Your task to perform on an android device: What is the recent news? Image 0: 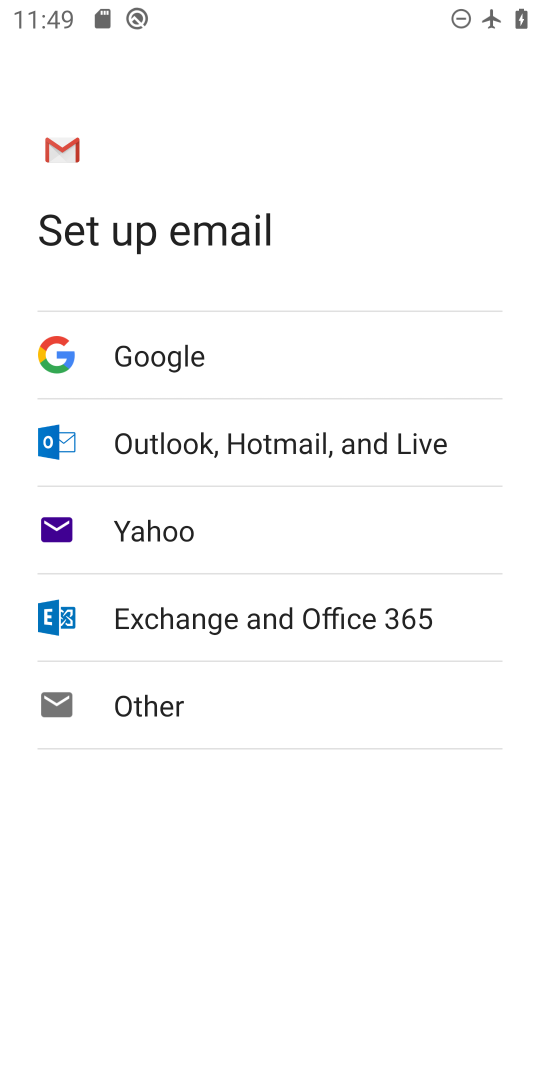
Step 0: press home button
Your task to perform on an android device: What is the recent news? Image 1: 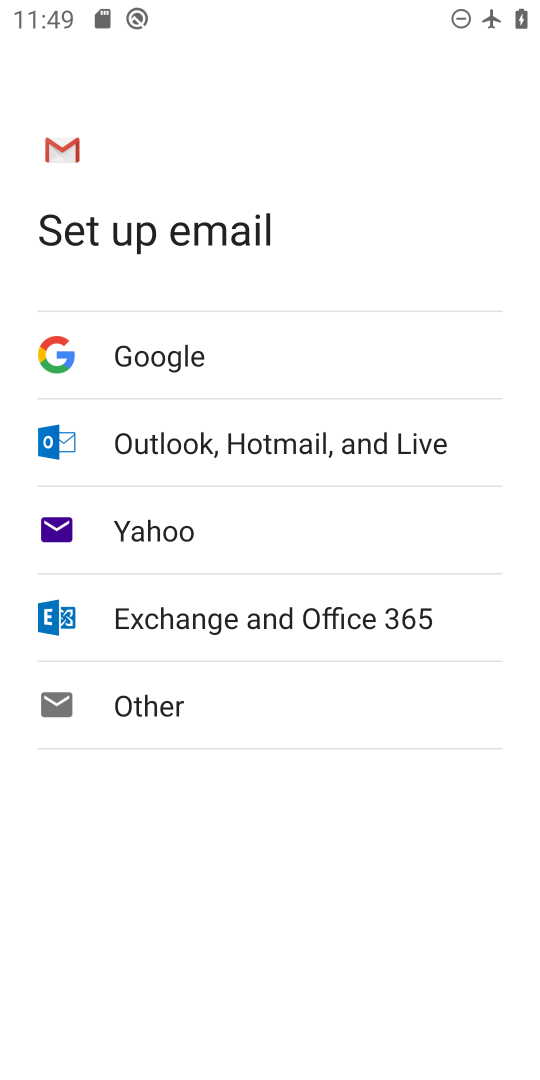
Step 1: press home button
Your task to perform on an android device: What is the recent news? Image 2: 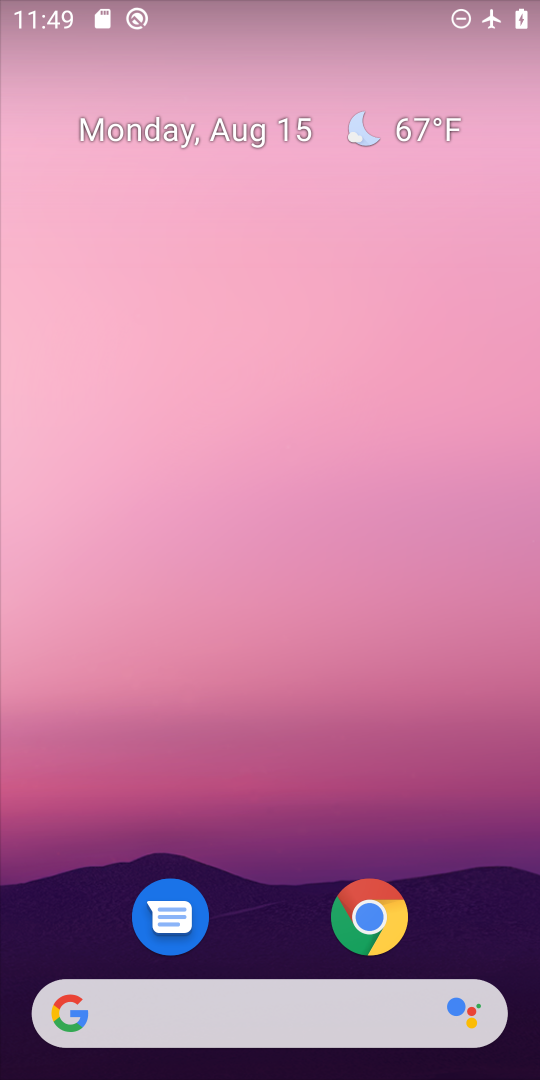
Step 2: click (357, 1013)
Your task to perform on an android device: What is the recent news? Image 3: 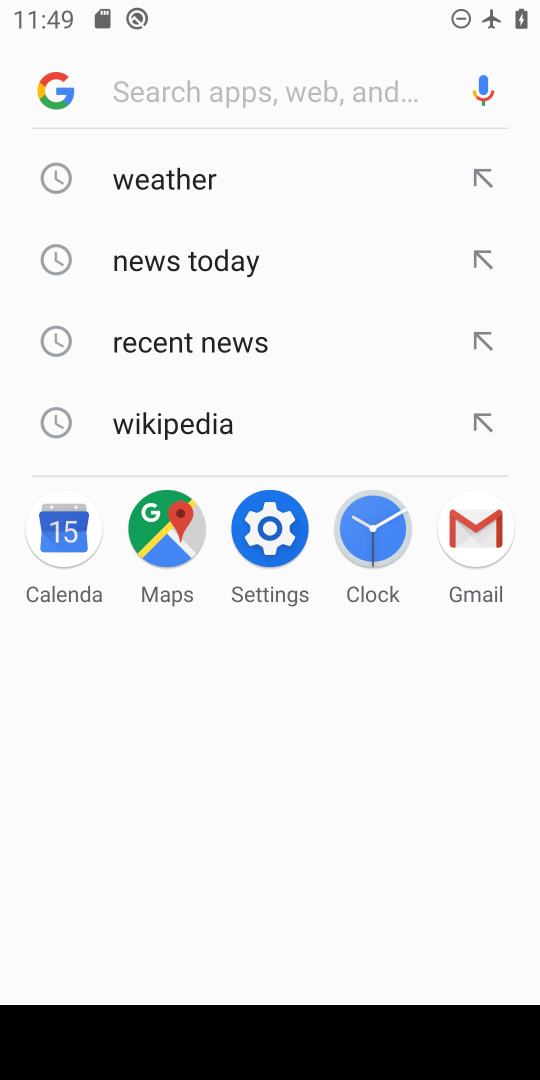
Step 3: click (206, 339)
Your task to perform on an android device: What is the recent news? Image 4: 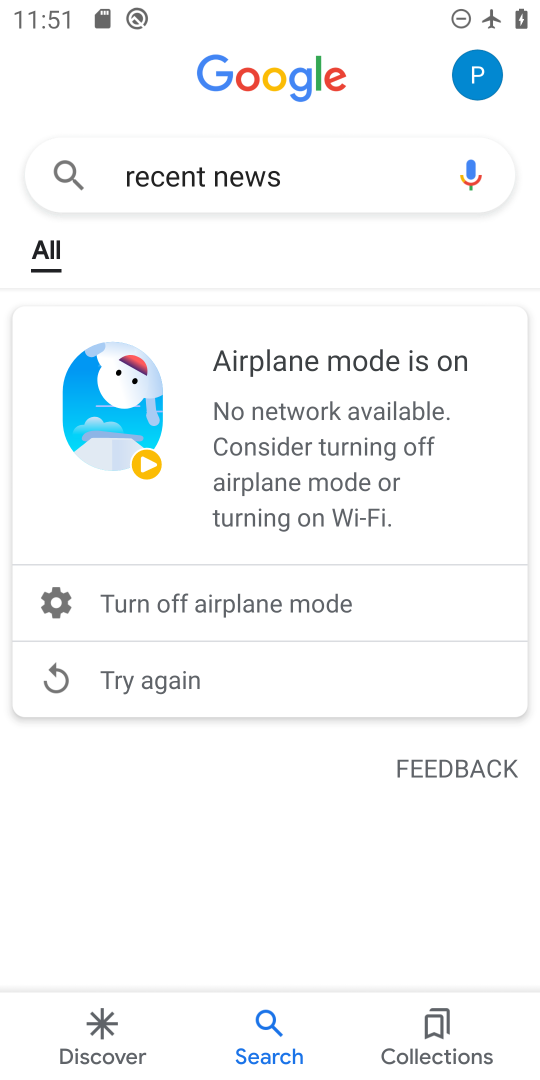
Step 4: task complete